Your task to perform on an android device: allow cookies in the chrome app Image 0: 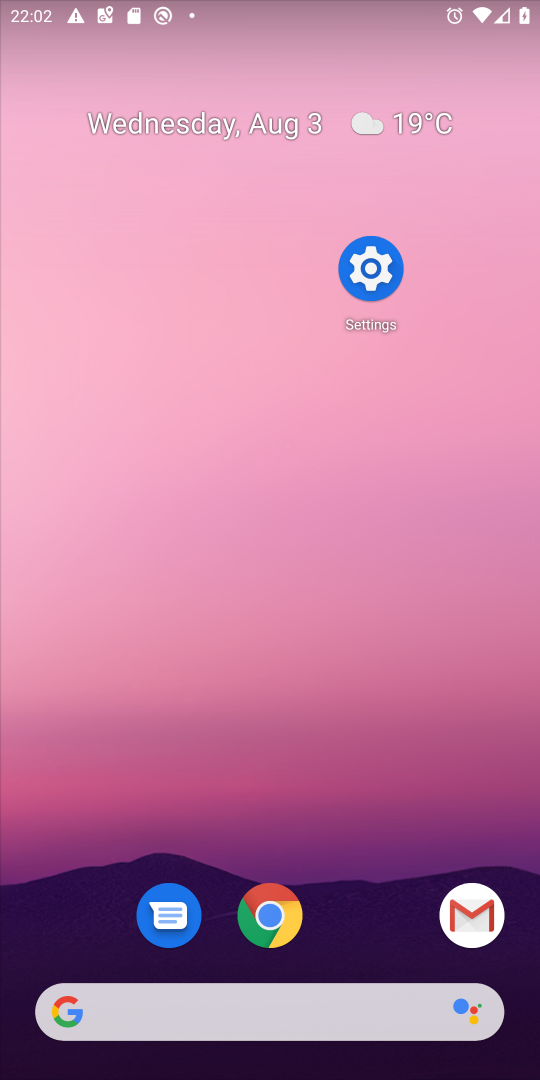
Step 0: press home button
Your task to perform on an android device: allow cookies in the chrome app Image 1: 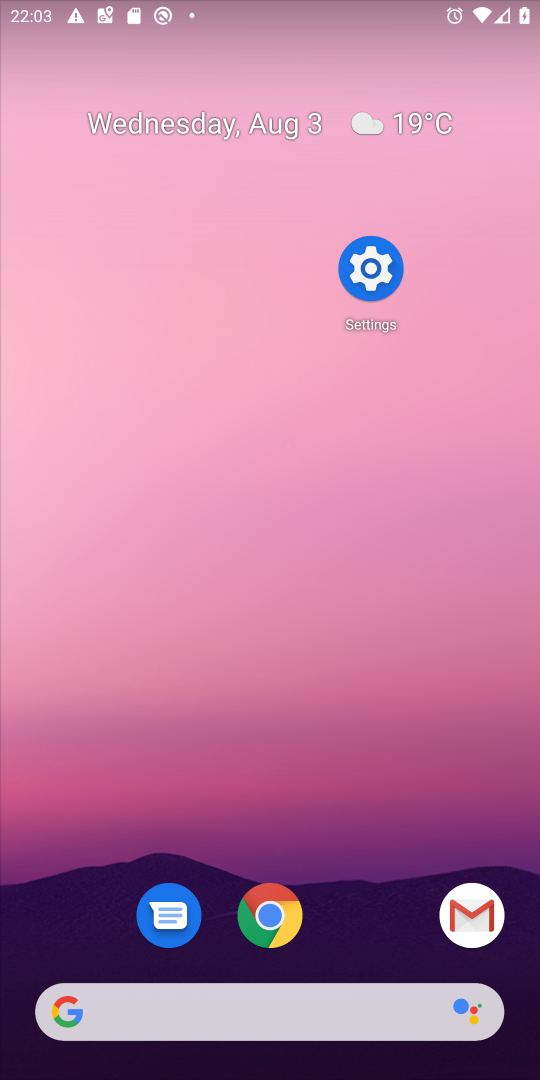
Step 1: drag from (353, 1019) to (174, 332)
Your task to perform on an android device: allow cookies in the chrome app Image 2: 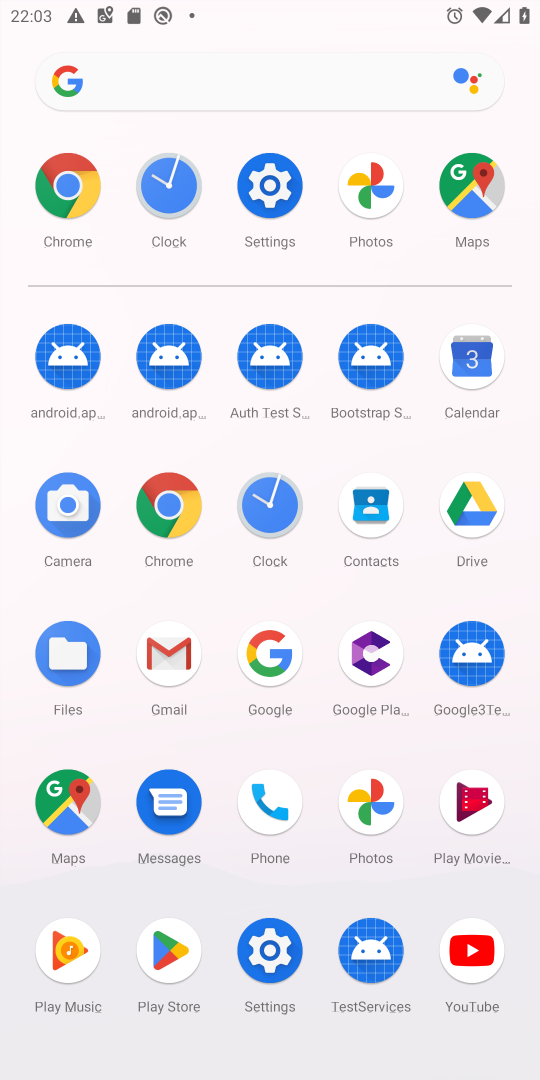
Step 2: click (66, 175)
Your task to perform on an android device: allow cookies in the chrome app Image 3: 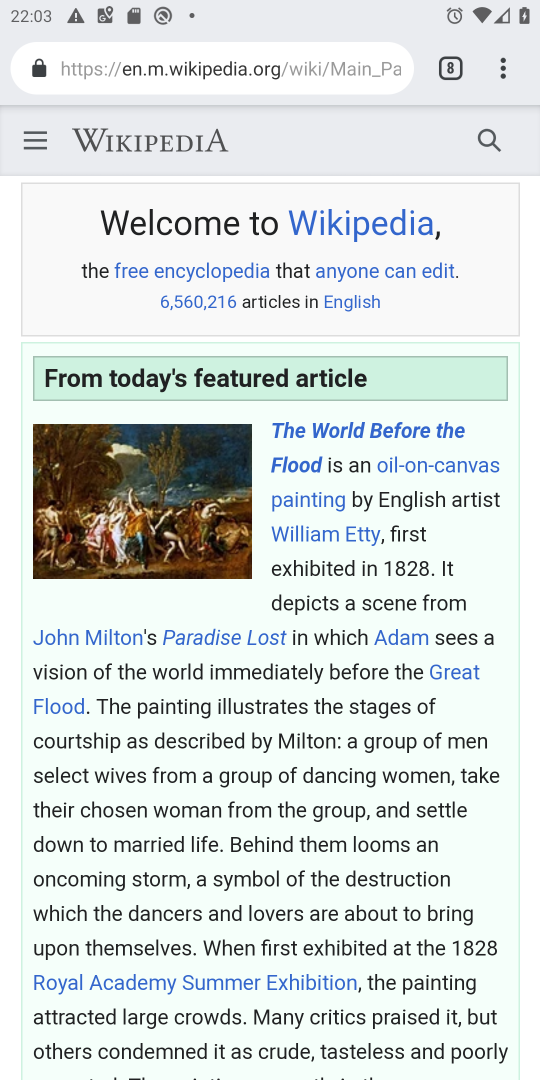
Step 3: click (496, 72)
Your task to perform on an android device: allow cookies in the chrome app Image 4: 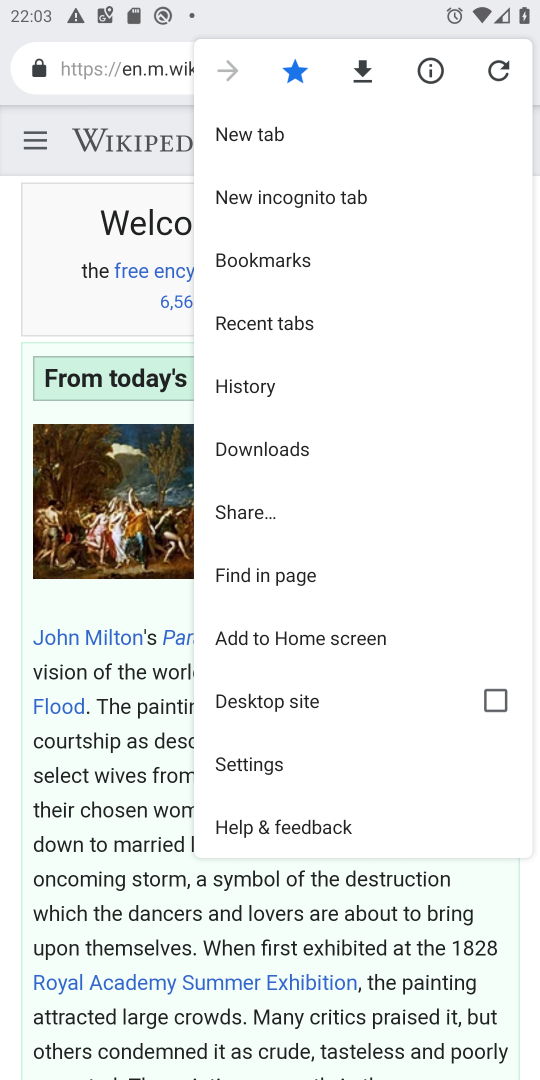
Step 4: click (255, 763)
Your task to perform on an android device: allow cookies in the chrome app Image 5: 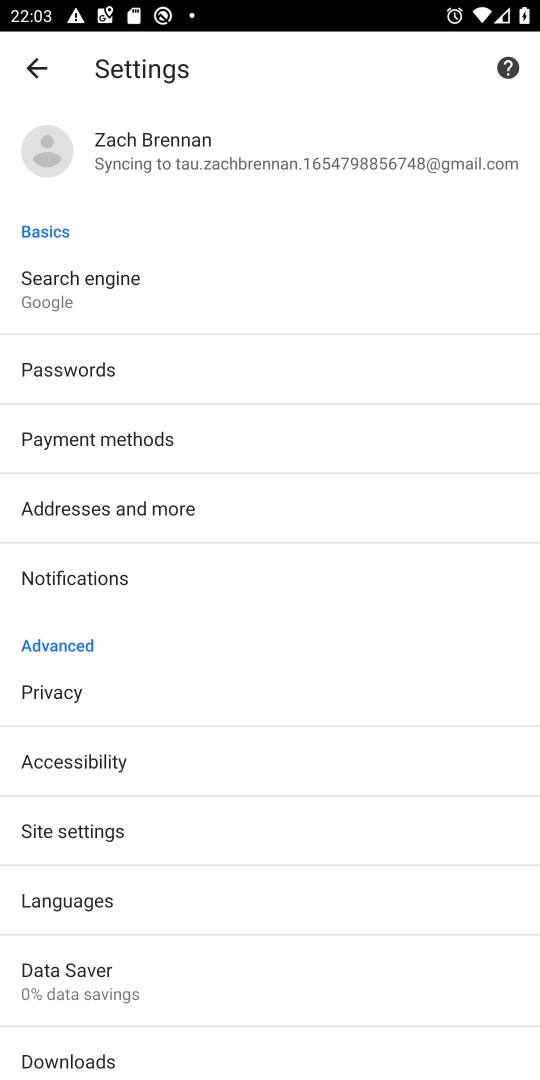
Step 5: click (102, 822)
Your task to perform on an android device: allow cookies in the chrome app Image 6: 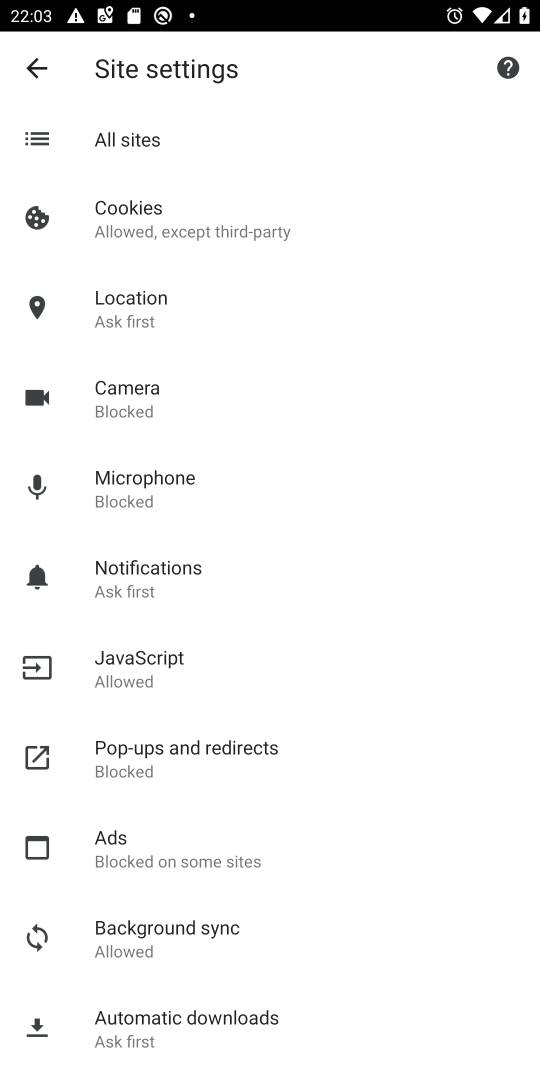
Step 6: click (117, 210)
Your task to perform on an android device: allow cookies in the chrome app Image 7: 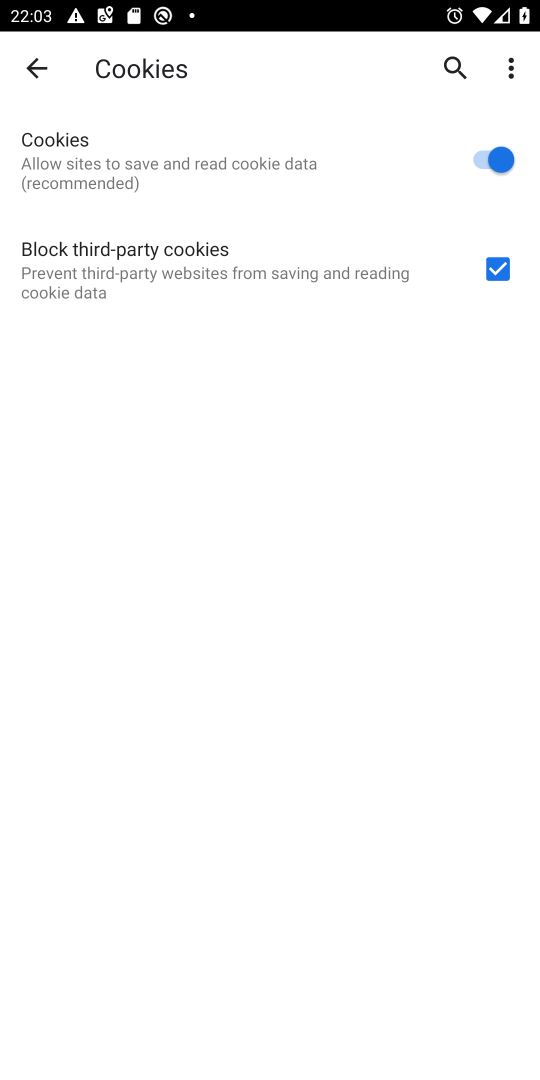
Step 7: click (143, 171)
Your task to perform on an android device: allow cookies in the chrome app Image 8: 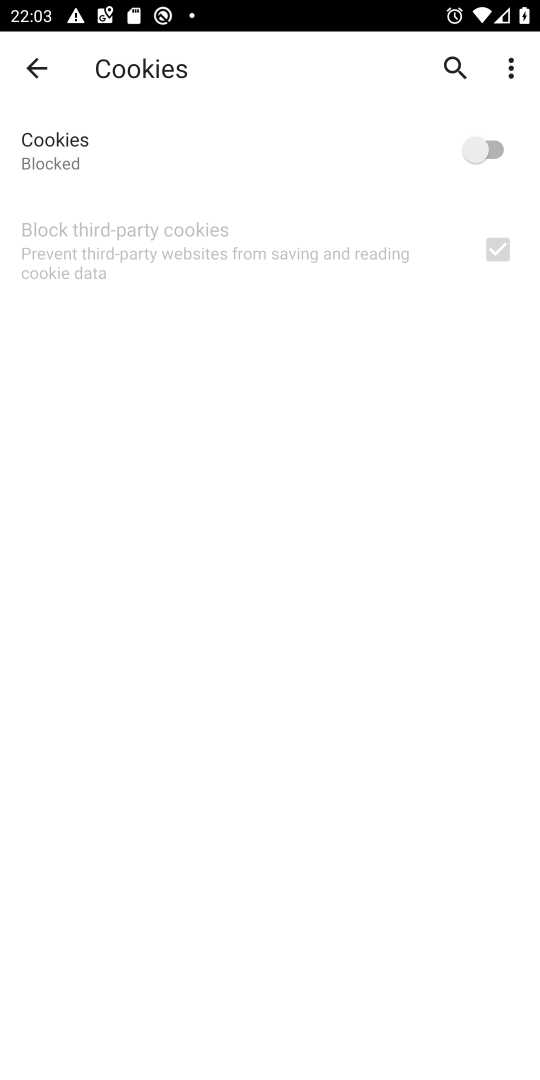
Step 8: click (143, 171)
Your task to perform on an android device: allow cookies in the chrome app Image 9: 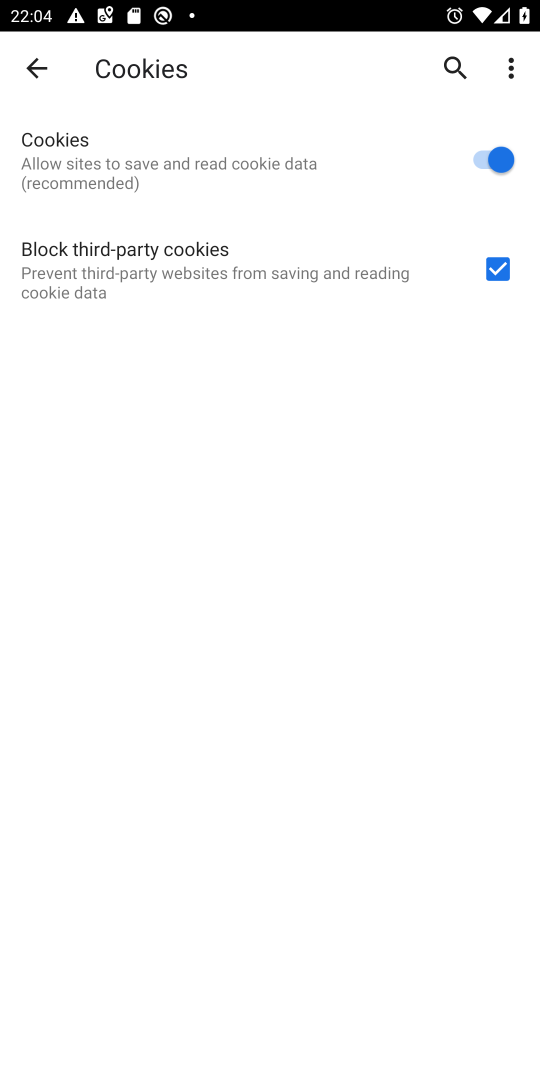
Step 9: task complete